Your task to perform on an android device: Go to Reddit.com Image 0: 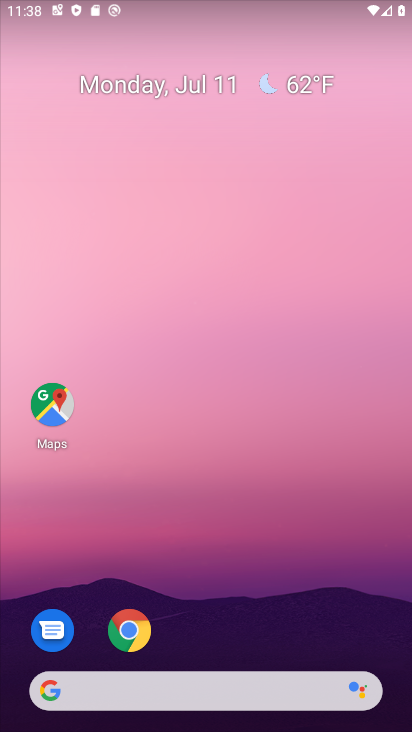
Step 0: drag from (285, 593) to (299, 25)
Your task to perform on an android device: Go to Reddit.com Image 1: 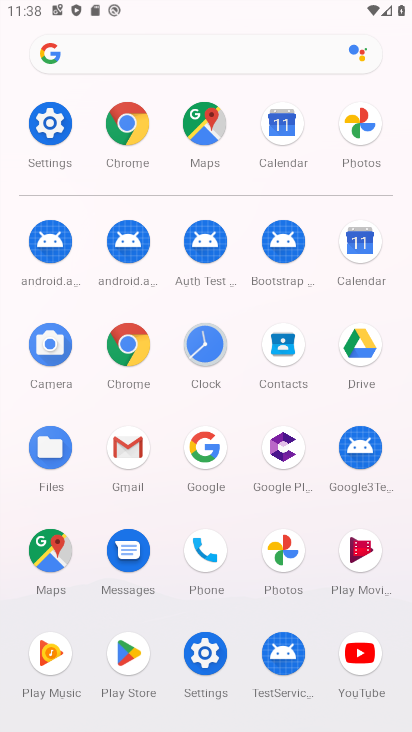
Step 1: click (130, 345)
Your task to perform on an android device: Go to Reddit.com Image 2: 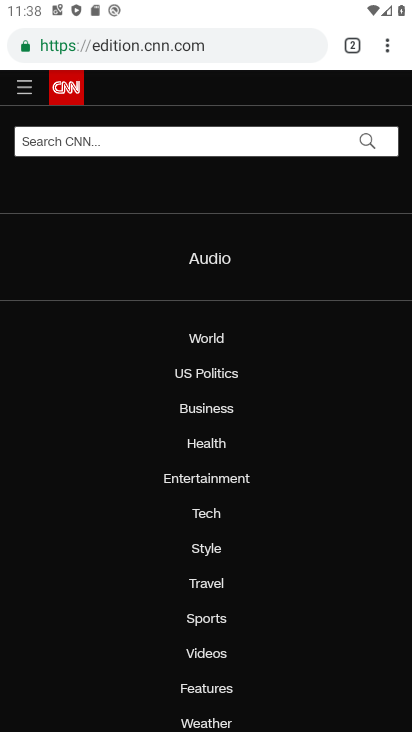
Step 2: click (238, 34)
Your task to perform on an android device: Go to Reddit.com Image 3: 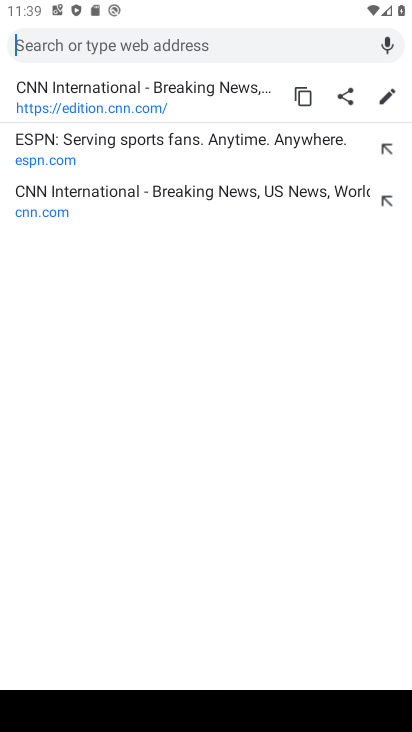
Step 3: type "reddit.com"
Your task to perform on an android device: Go to Reddit.com Image 4: 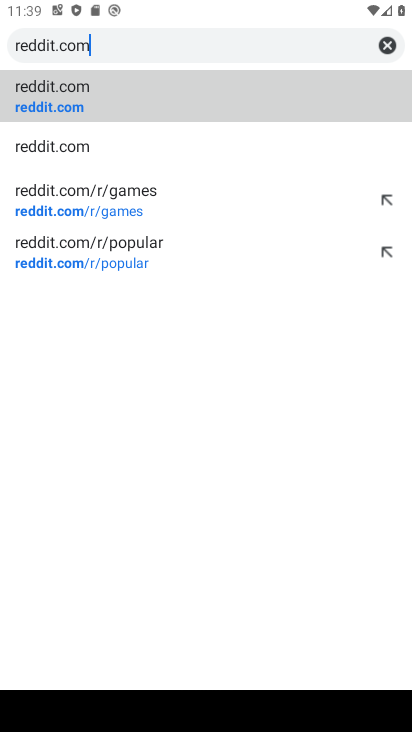
Step 4: click (47, 99)
Your task to perform on an android device: Go to Reddit.com Image 5: 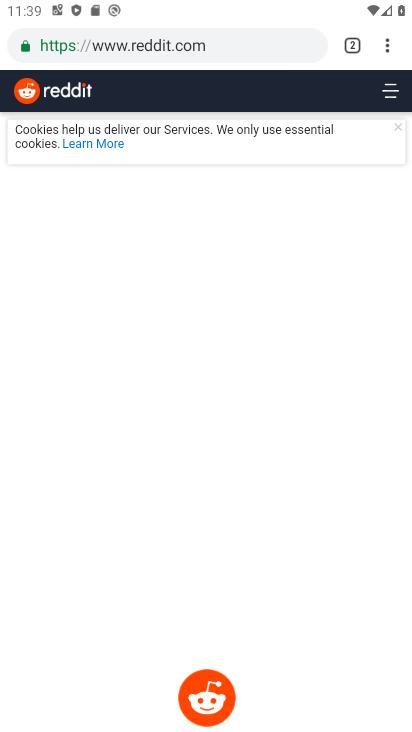
Step 5: task complete